Your task to perform on an android device: turn off smart reply in the gmail app Image 0: 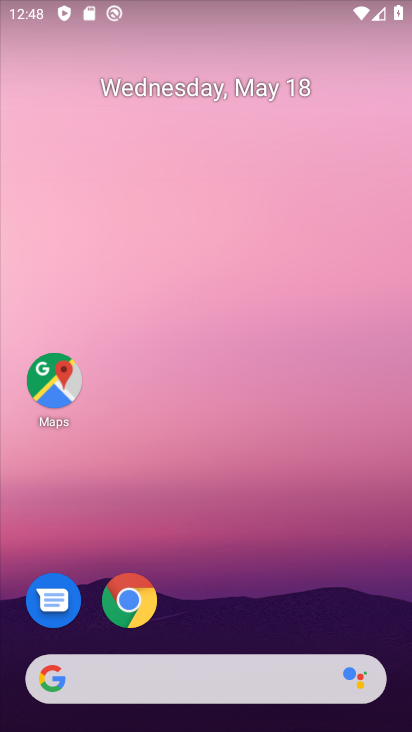
Step 0: drag from (245, 597) to (156, 0)
Your task to perform on an android device: turn off smart reply in the gmail app Image 1: 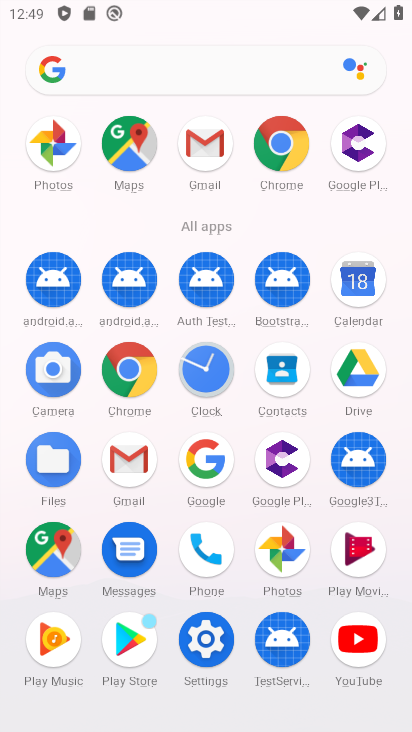
Step 1: click (206, 142)
Your task to perform on an android device: turn off smart reply in the gmail app Image 2: 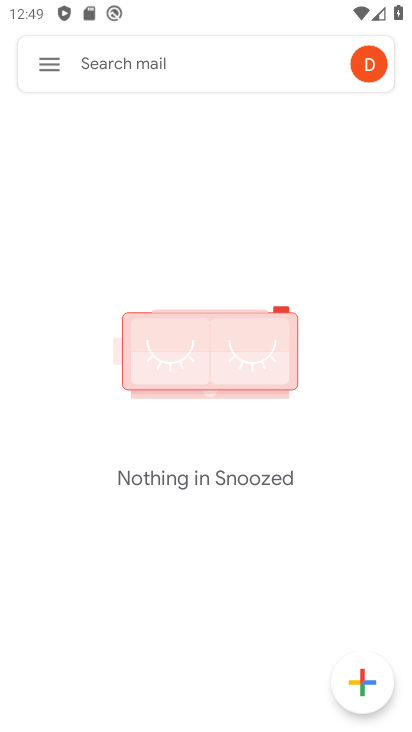
Step 2: click (46, 69)
Your task to perform on an android device: turn off smart reply in the gmail app Image 3: 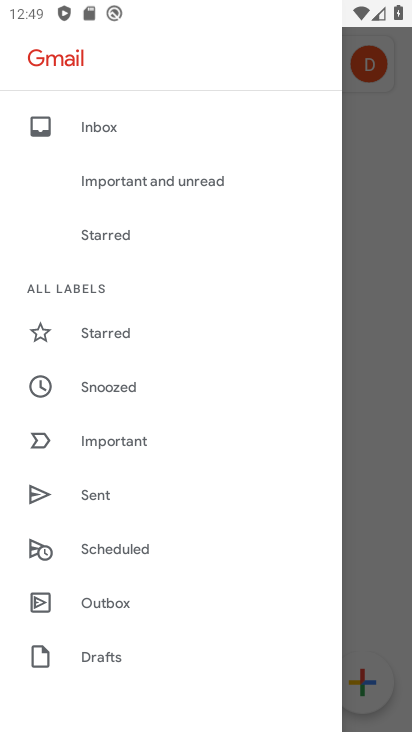
Step 3: drag from (117, 463) to (146, 393)
Your task to perform on an android device: turn off smart reply in the gmail app Image 4: 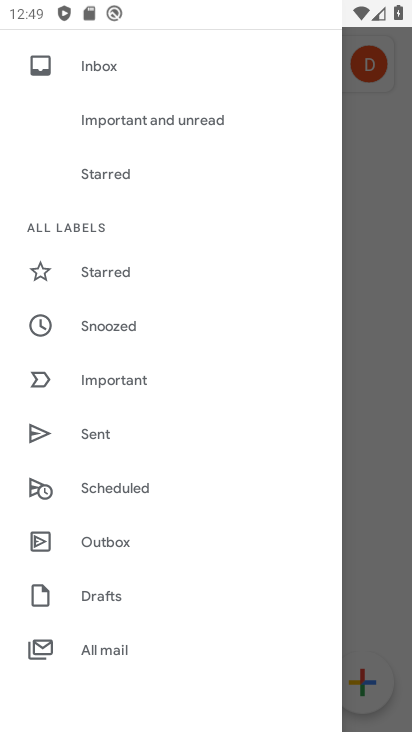
Step 4: drag from (104, 529) to (147, 468)
Your task to perform on an android device: turn off smart reply in the gmail app Image 5: 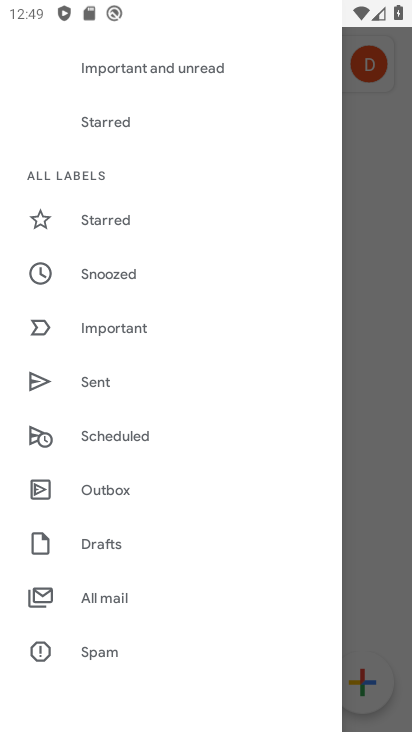
Step 5: drag from (80, 570) to (158, 483)
Your task to perform on an android device: turn off smart reply in the gmail app Image 6: 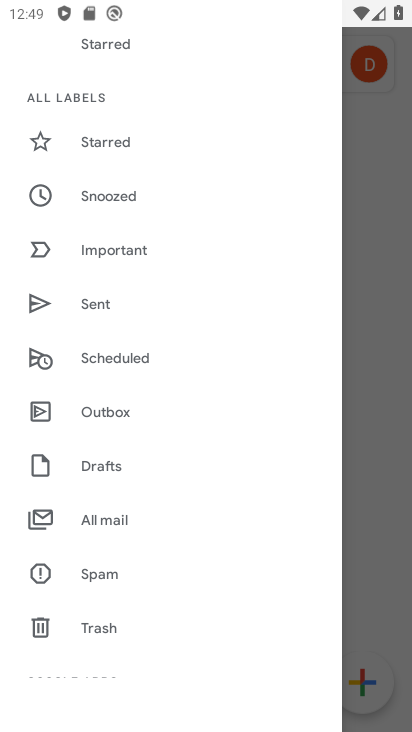
Step 6: drag from (86, 589) to (160, 498)
Your task to perform on an android device: turn off smart reply in the gmail app Image 7: 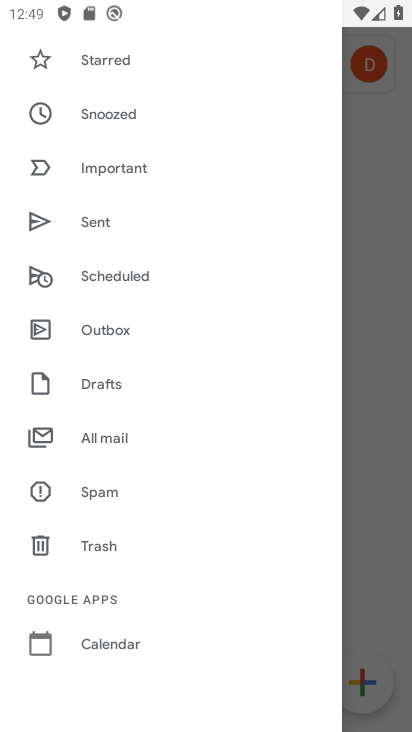
Step 7: drag from (95, 600) to (177, 508)
Your task to perform on an android device: turn off smart reply in the gmail app Image 8: 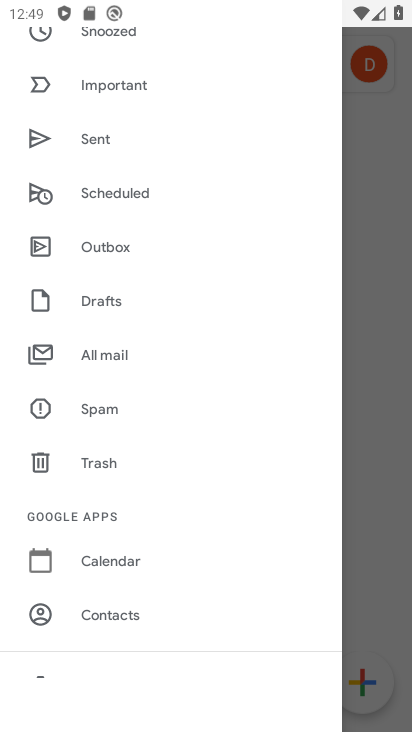
Step 8: drag from (109, 635) to (191, 542)
Your task to perform on an android device: turn off smart reply in the gmail app Image 9: 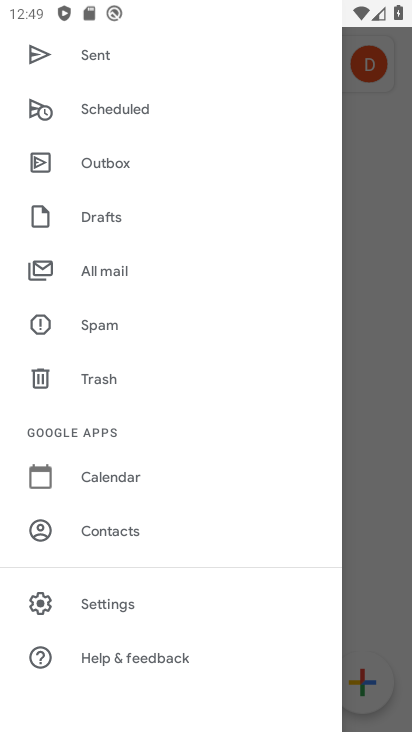
Step 9: click (110, 609)
Your task to perform on an android device: turn off smart reply in the gmail app Image 10: 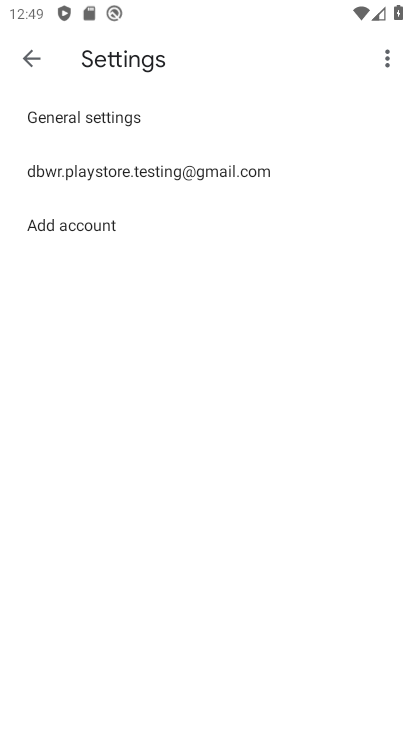
Step 10: click (159, 169)
Your task to perform on an android device: turn off smart reply in the gmail app Image 11: 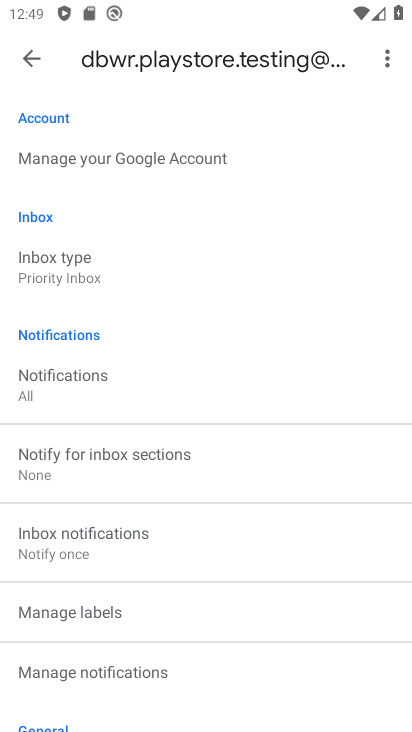
Step 11: drag from (140, 553) to (169, 472)
Your task to perform on an android device: turn off smart reply in the gmail app Image 12: 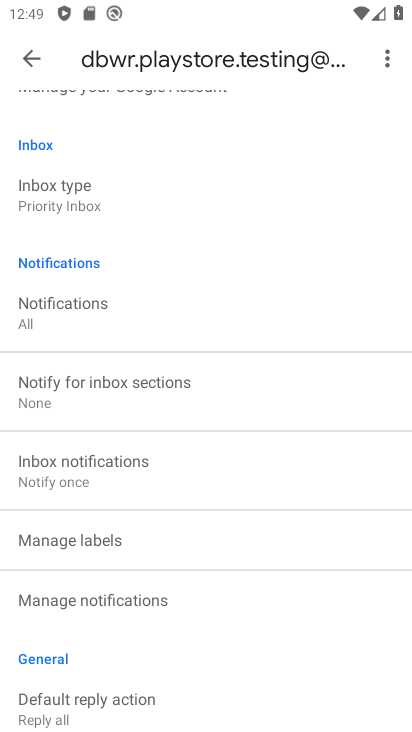
Step 12: drag from (132, 562) to (160, 509)
Your task to perform on an android device: turn off smart reply in the gmail app Image 13: 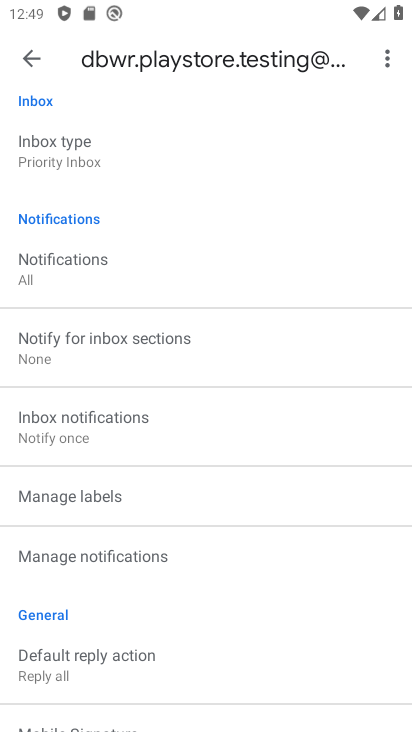
Step 13: drag from (94, 598) to (124, 506)
Your task to perform on an android device: turn off smart reply in the gmail app Image 14: 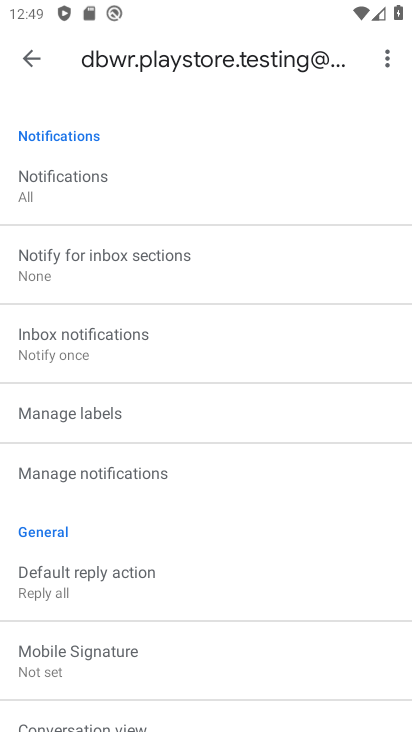
Step 14: drag from (95, 594) to (125, 518)
Your task to perform on an android device: turn off smart reply in the gmail app Image 15: 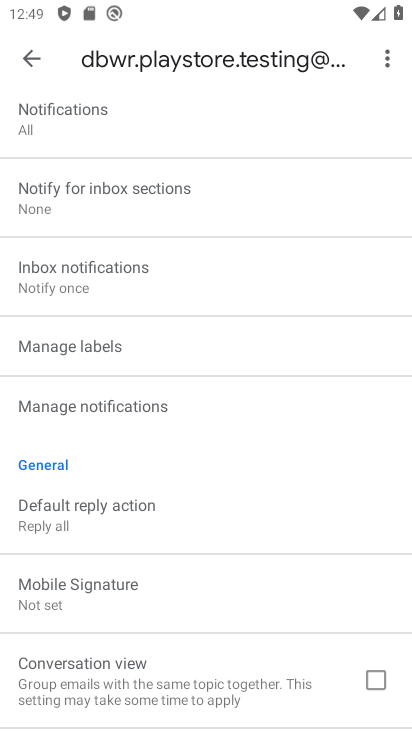
Step 15: drag from (97, 613) to (129, 534)
Your task to perform on an android device: turn off smart reply in the gmail app Image 16: 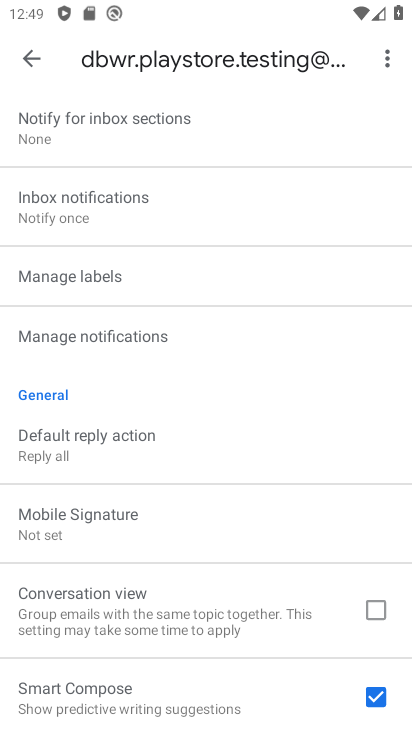
Step 16: drag from (100, 637) to (161, 540)
Your task to perform on an android device: turn off smart reply in the gmail app Image 17: 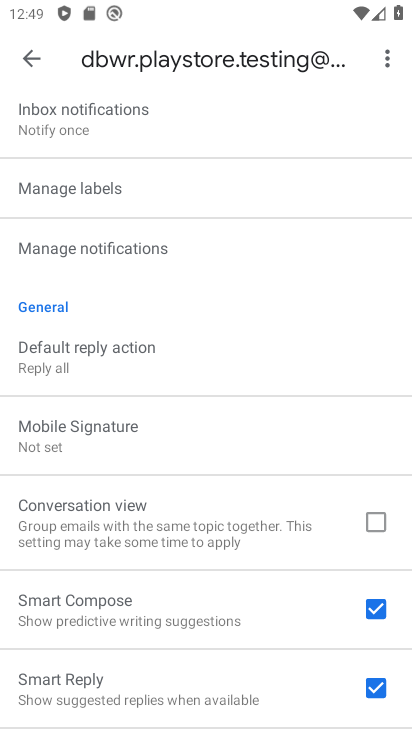
Step 17: drag from (113, 649) to (182, 532)
Your task to perform on an android device: turn off smart reply in the gmail app Image 18: 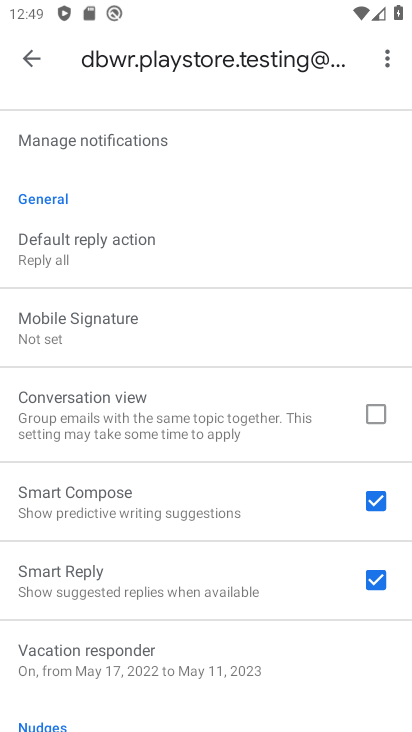
Step 18: click (373, 586)
Your task to perform on an android device: turn off smart reply in the gmail app Image 19: 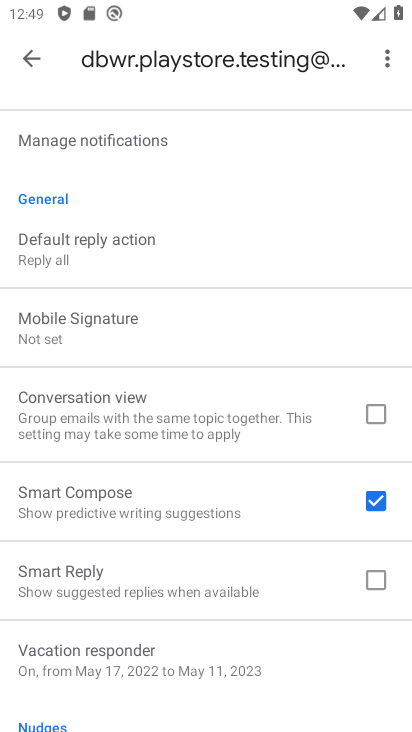
Step 19: task complete